Your task to perform on an android device: What's the weather today? Image 0: 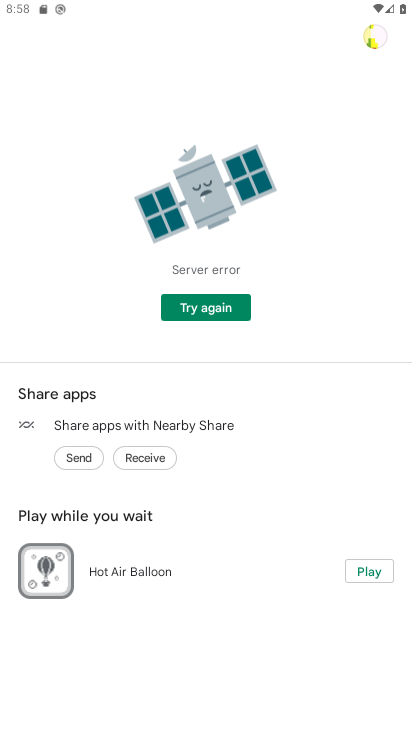
Step 0: press home button
Your task to perform on an android device: What's the weather today? Image 1: 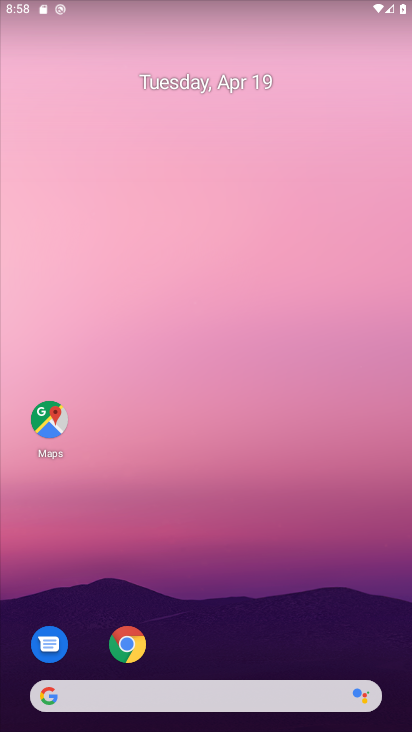
Step 1: drag from (323, 583) to (274, 33)
Your task to perform on an android device: What's the weather today? Image 2: 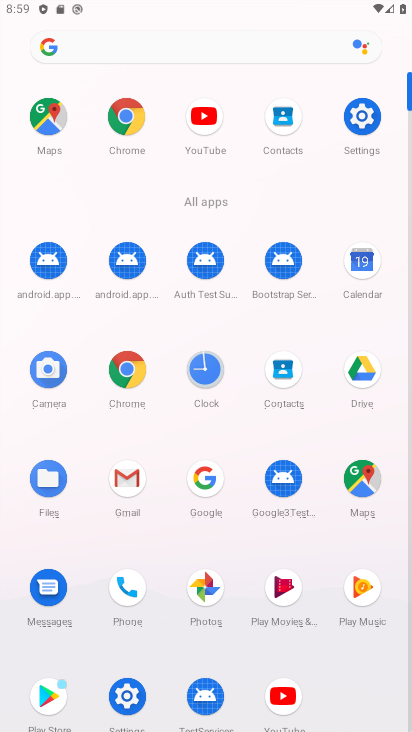
Step 2: drag from (315, 672) to (338, 324)
Your task to perform on an android device: What's the weather today? Image 3: 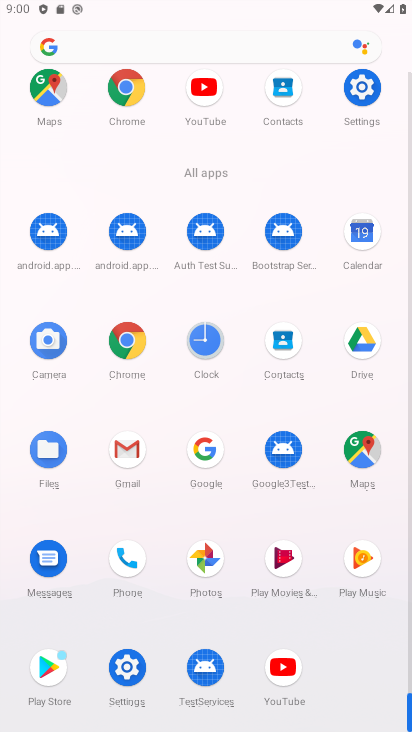
Step 3: click (120, 81)
Your task to perform on an android device: What's the weather today? Image 4: 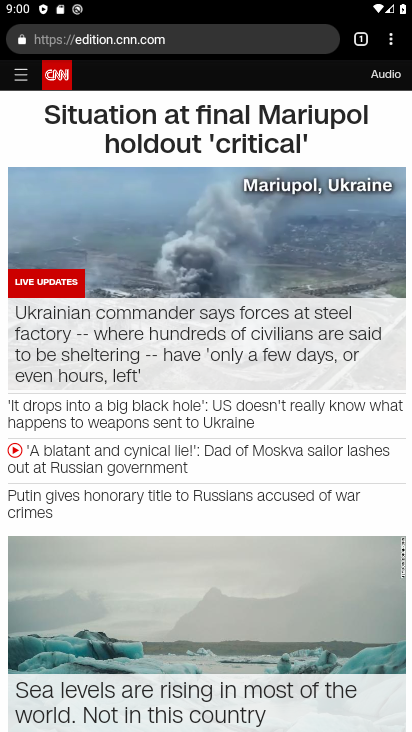
Step 4: click (171, 36)
Your task to perform on an android device: What's the weather today? Image 5: 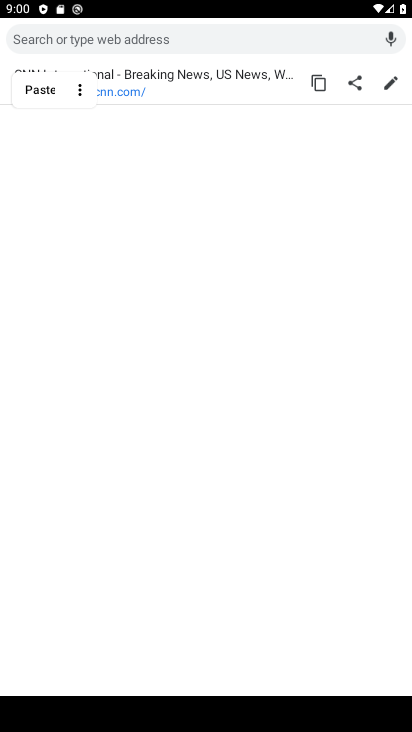
Step 5: type "What's the weather today?"
Your task to perform on an android device: What's the weather today? Image 6: 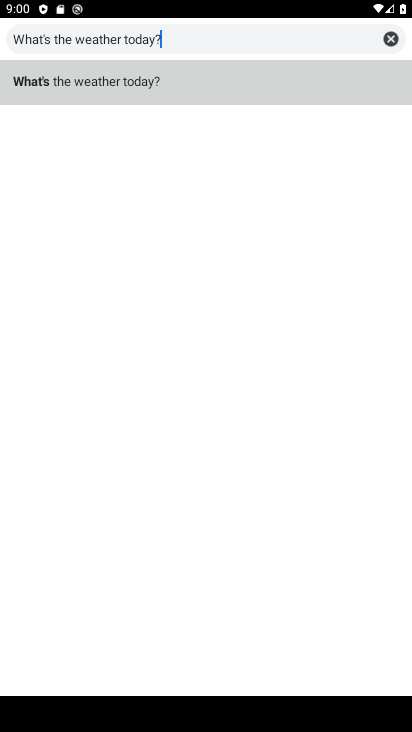
Step 6: click (245, 78)
Your task to perform on an android device: What's the weather today? Image 7: 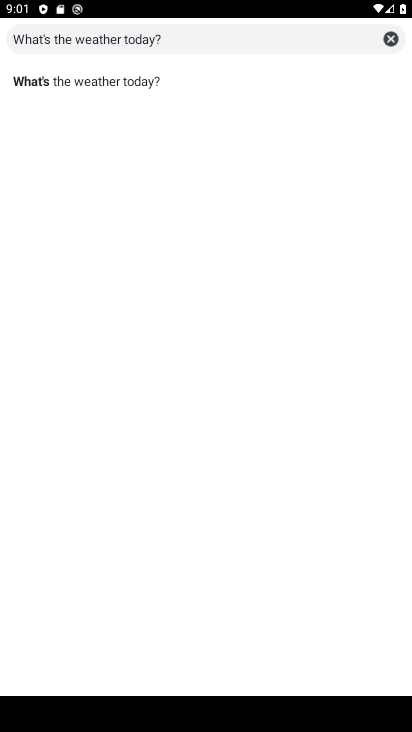
Step 7: click (68, 82)
Your task to perform on an android device: What's the weather today? Image 8: 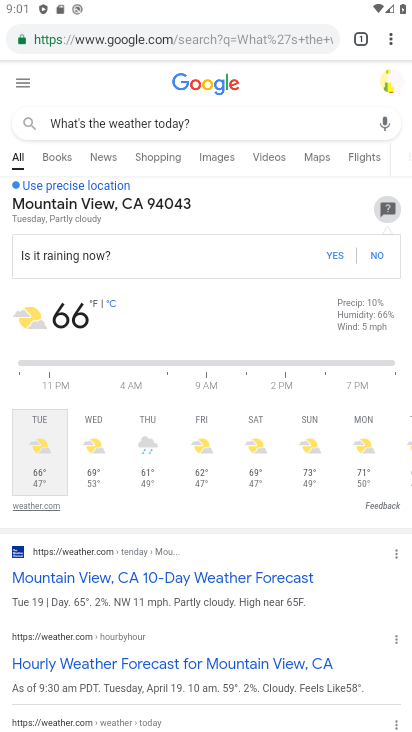
Step 8: task complete